Your task to perform on an android device: Go to Yahoo.com Image 0: 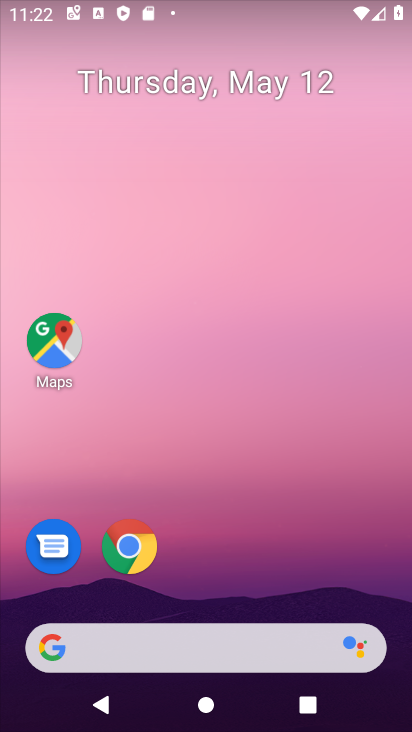
Step 0: drag from (253, 672) to (243, 267)
Your task to perform on an android device: Go to Yahoo.com Image 1: 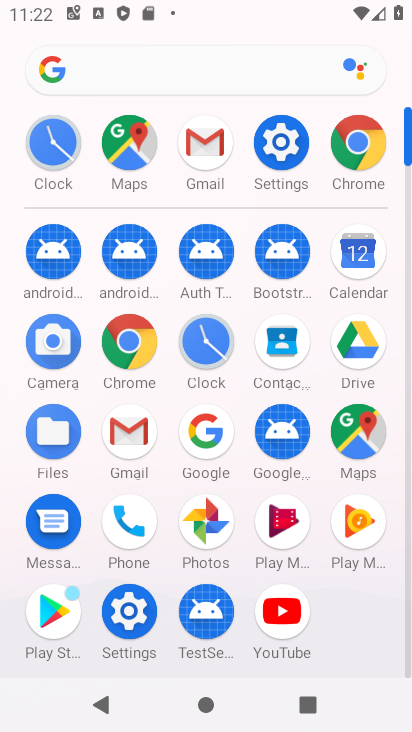
Step 1: click (351, 145)
Your task to perform on an android device: Go to Yahoo.com Image 2: 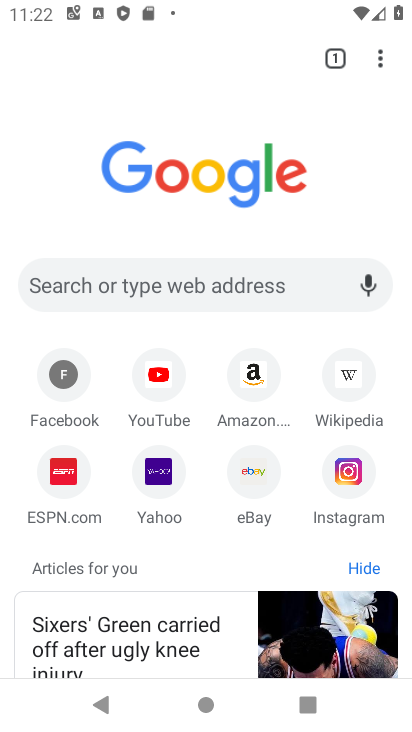
Step 2: click (163, 472)
Your task to perform on an android device: Go to Yahoo.com Image 3: 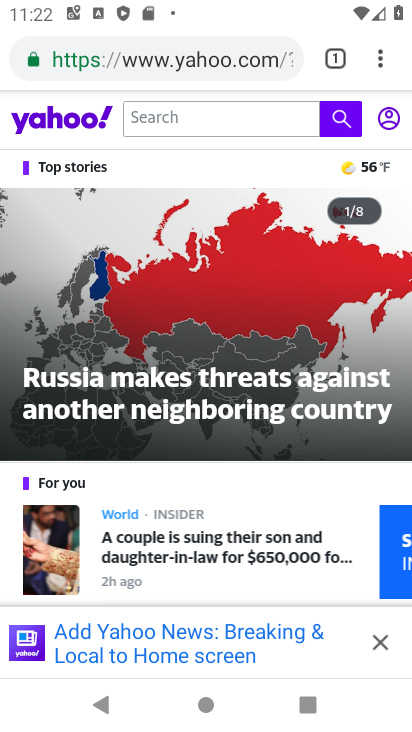
Step 3: task complete